Your task to perform on an android device: Open the phone app and click the voicemail tab. Image 0: 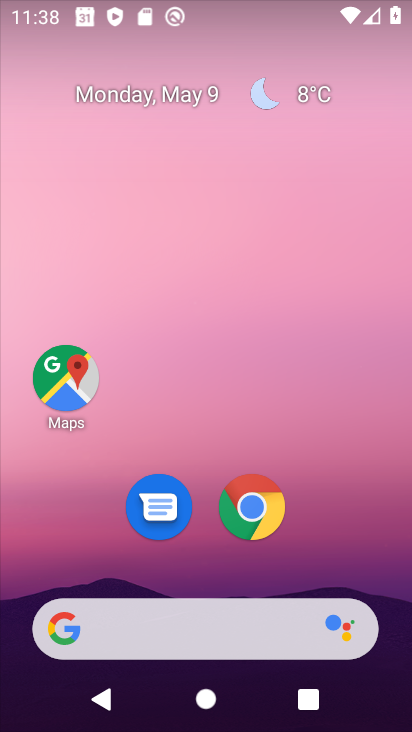
Step 0: drag from (308, 518) to (268, 78)
Your task to perform on an android device: Open the phone app and click the voicemail tab. Image 1: 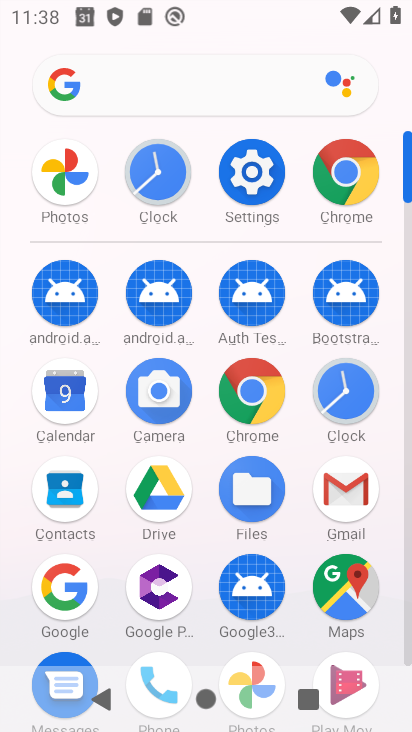
Step 1: drag from (191, 613) to (199, 457)
Your task to perform on an android device: Open the phone app and click the voicemail tab. Image 2: 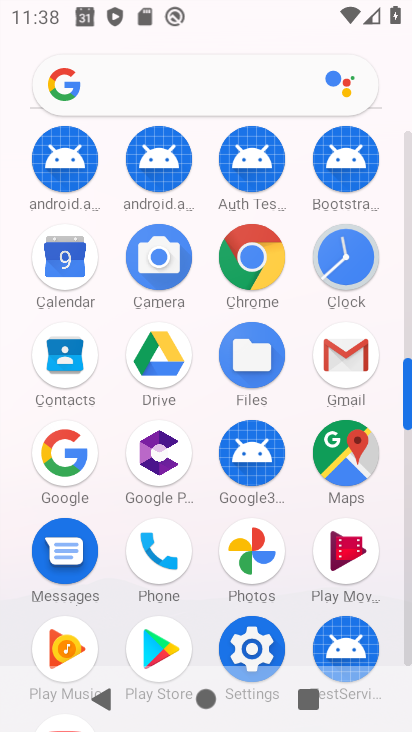
Step 2: click (169, 552)
Your task to perform on an android device: Open the phone app and click the voicemail tab. Image 3: 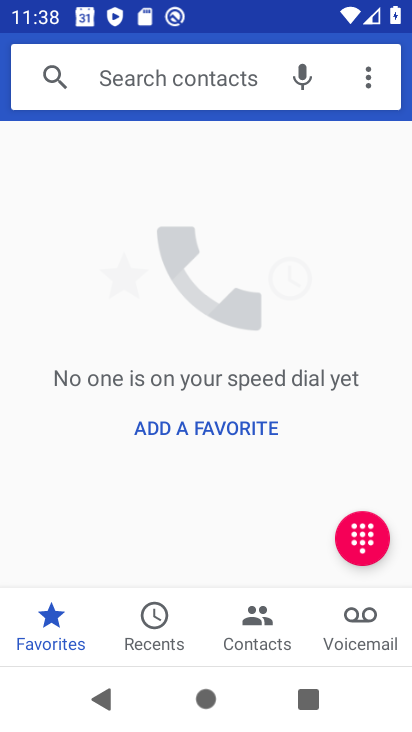
Step 3: click (353, 620)
Your task to perform on an android device: Open the phone app and click the voicemail tab. Image 4: 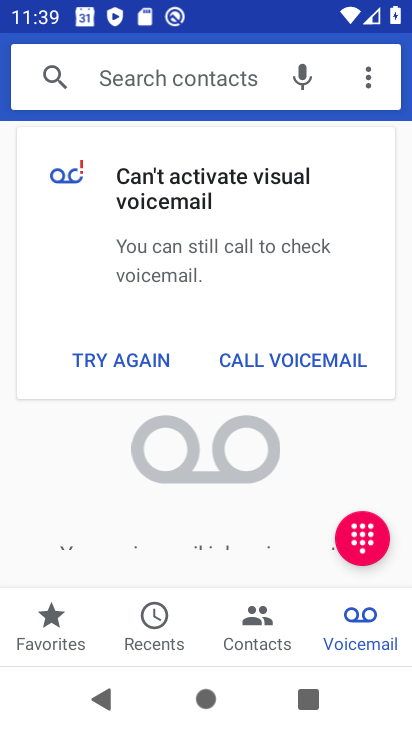
Step 4: task complete